Your task to perform on an android device: turn on the 24-hour format for clock Image 0: 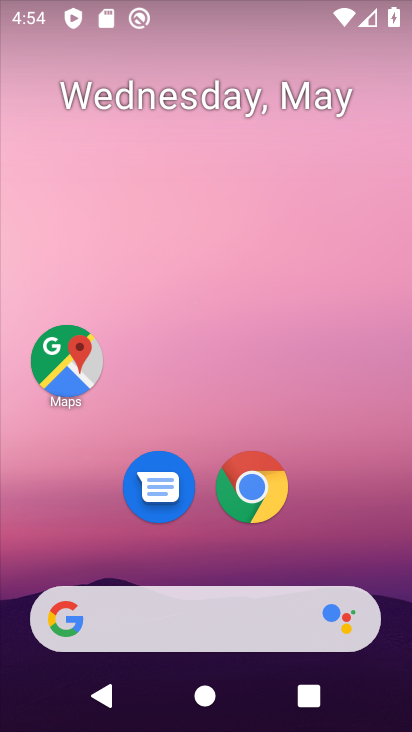
Step 0: drag from (338, 536) to (305, 164)
Your task to perform on an android device: turn on the 24-hour format for clock Image 1: 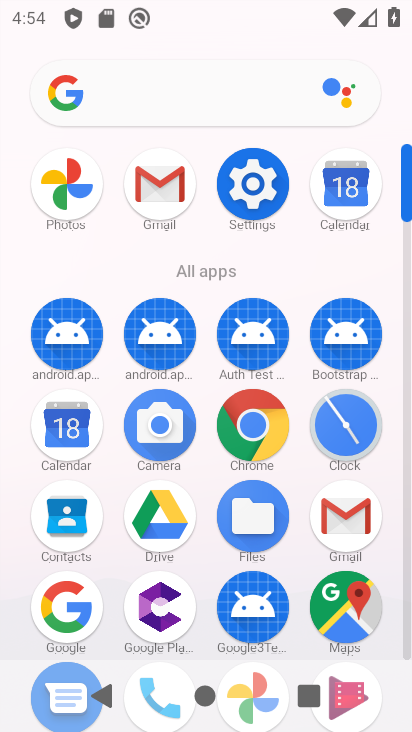
Step 1: click (359, 439)
Your task to perform on an android device: turn on the 24-hour format for clock Image 2: 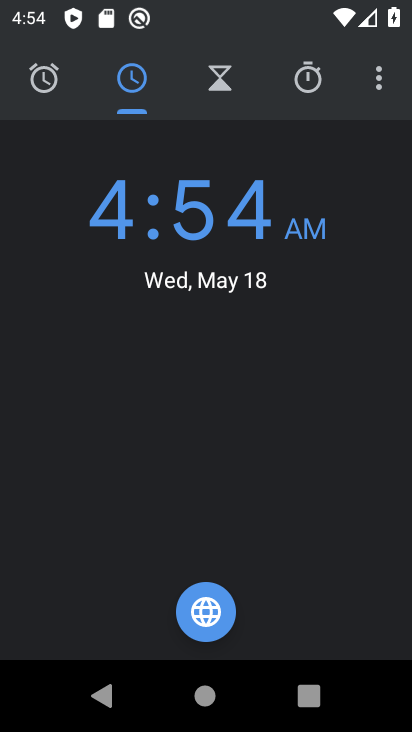
Step 2: click (375, 89)
Your task to perform on an android device: turn on the 24-hour format for clock Image 3: 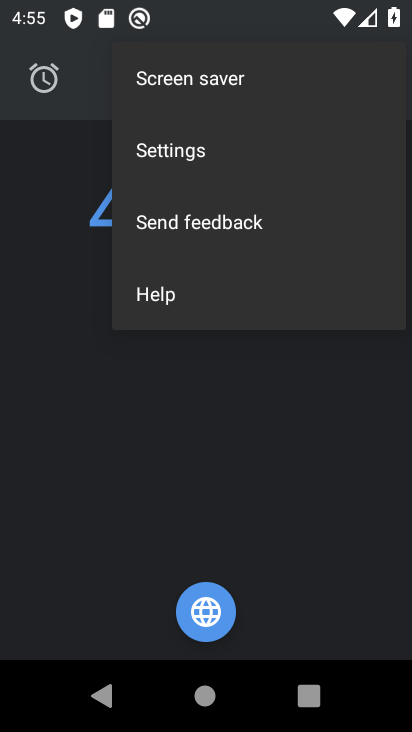
Step 3: click (209, 147)
Your task to perform on an android device: turn on the 24-hour format for clock Image 4: 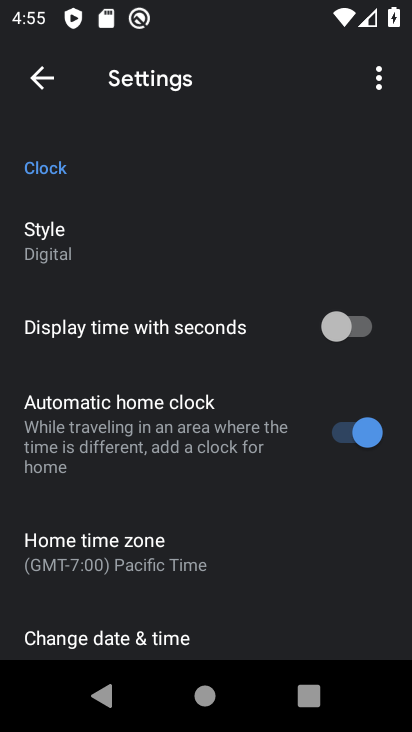
Step 4: drag from (90, 570) to (91, 269)
Your task to perform on an android device: turn on the 24-hour format for clock Image 5: 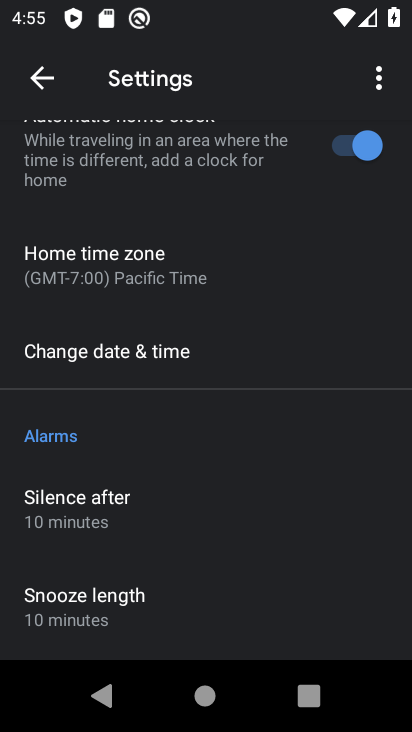
Step 5: drag from (93, 558) to (121, 380)
Your task to perform on an android device: turn on the 24-hour format for clock Image 6: 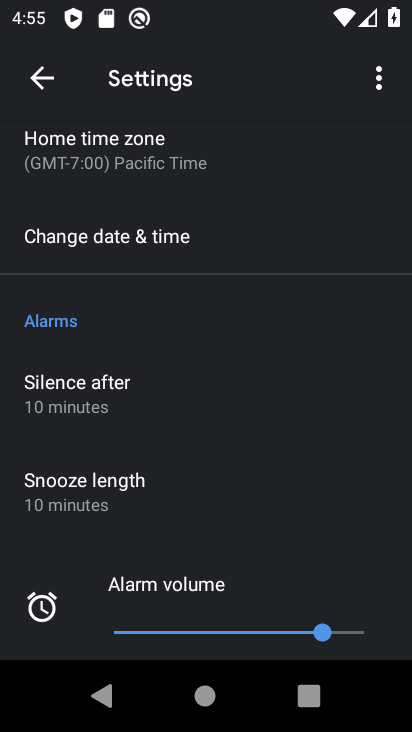
Step 6: click (146, 259)
Your task to perform on an android device: turn on the 24-hour format for clock Image 7: 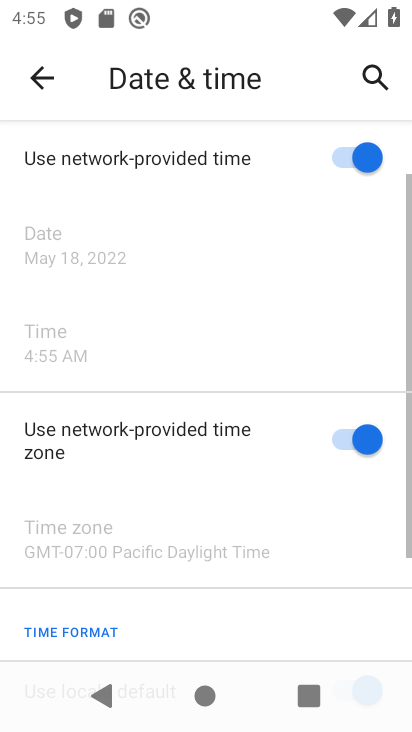
Step 7: drag from (194, 571) to (213, 266)
Your task to perform on an android device: turn on the 24-hour format for clock Image 8: 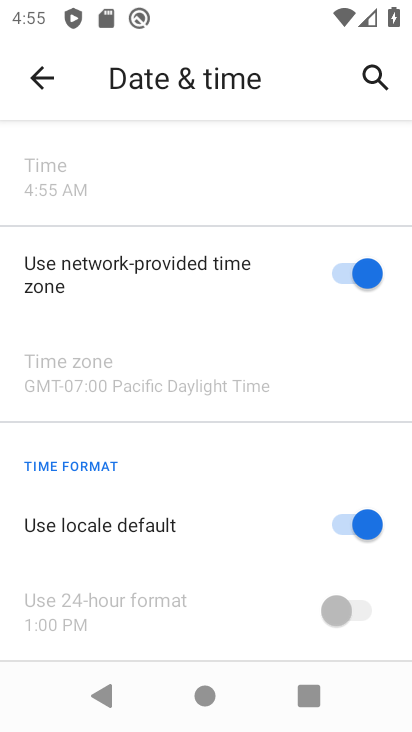
Step 8: click (333, 536)
Your task to perform on an android device: turn on the 24-hour format for clock Image 9: 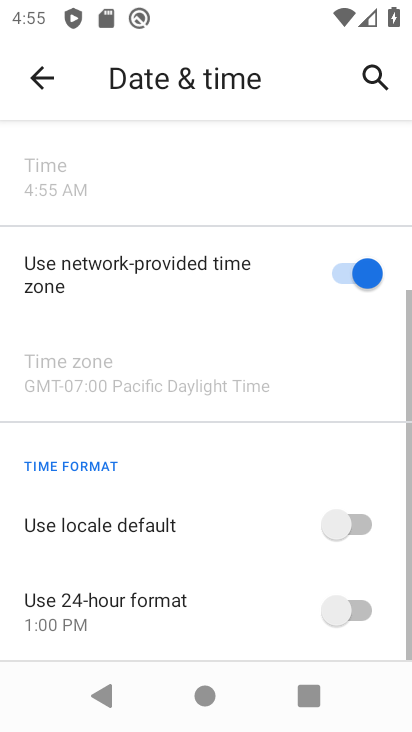
Step 9: click (348, 614)
Your task to perform on an android device: turn on the 24-hour format for clock Image 10: 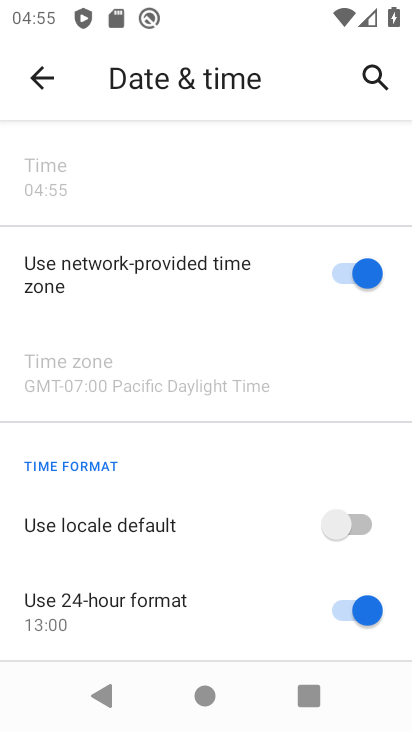
Step 10: task complete